Your task to perform on an android device: install app "Paramount+ | Peak Streaming" Image 0: 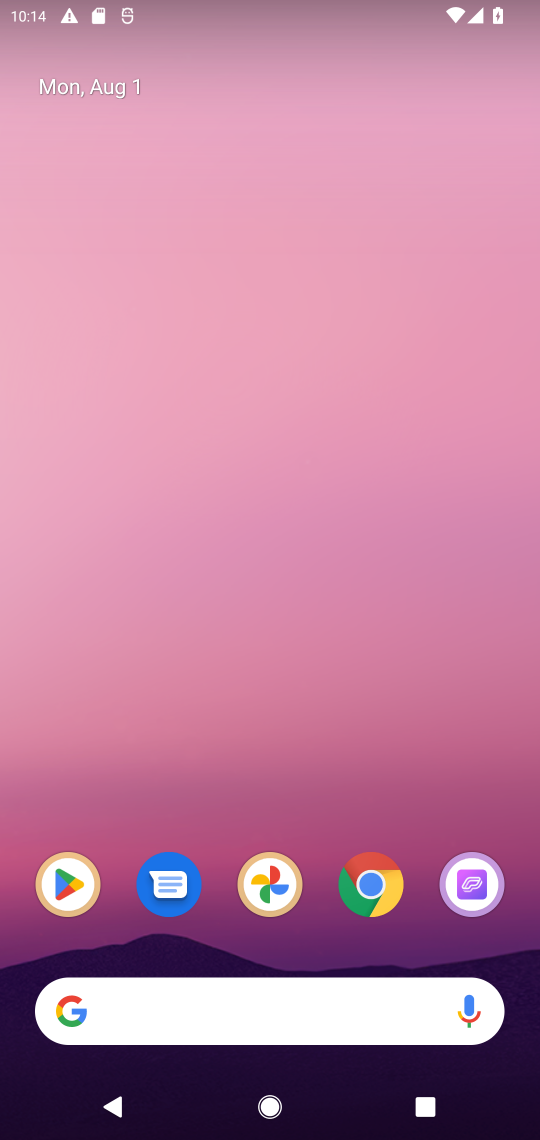
Step 0: click (56, 902)
Your task to perform on an android device: install app "Paramount+ | Peak Streaming" Image 1: 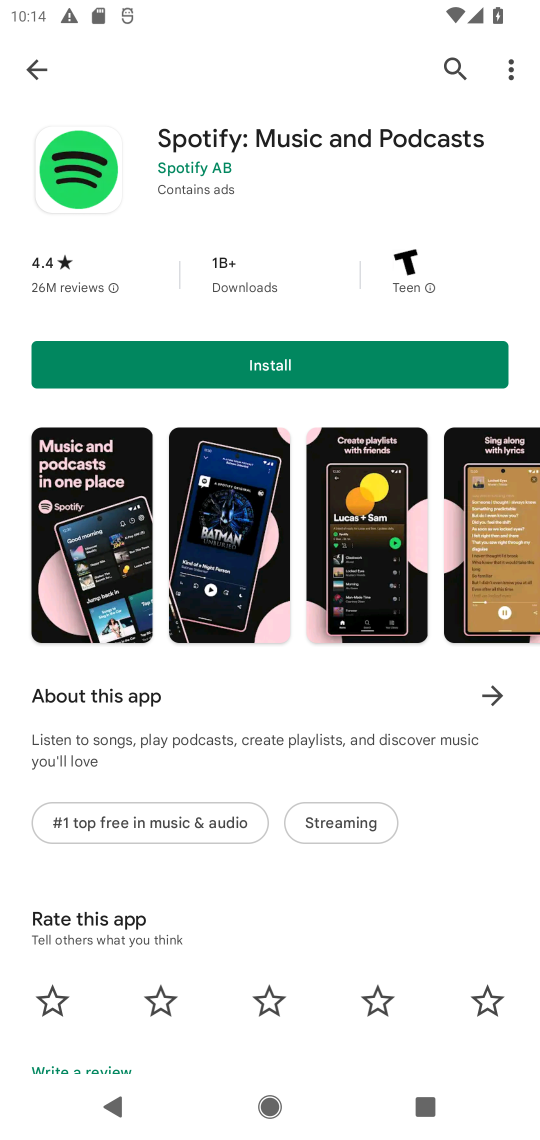
Step 1: click (455, 72)
Your task to perform on an android device: install app "Paramount+ | Peak Streaming" Image 2: 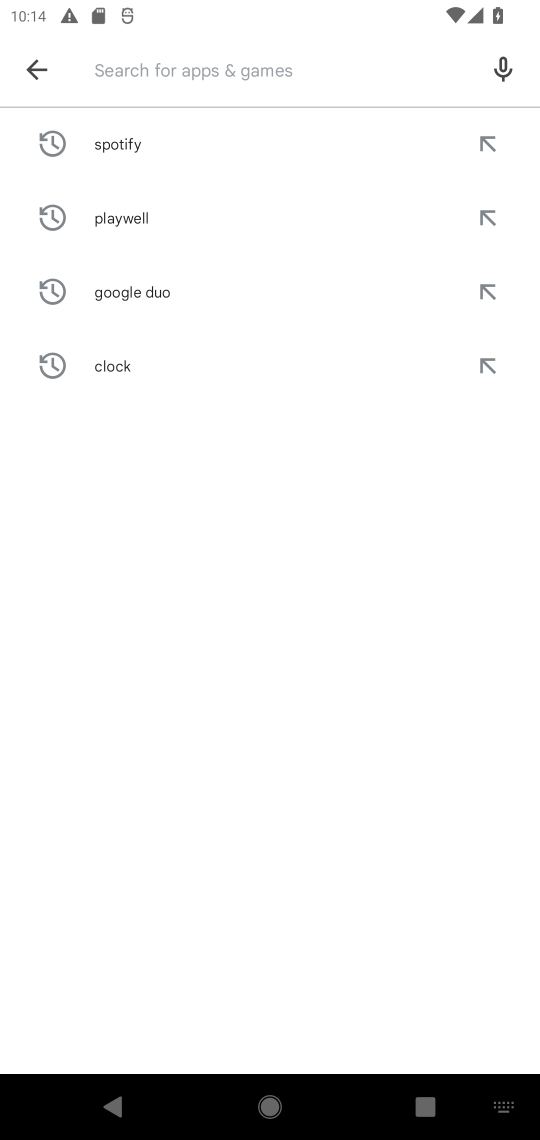
Step 2: type "paramount+ peak streaming"
Your task to perform on an android device: install app "Paramount+ | Peak Streaming" Image 3: 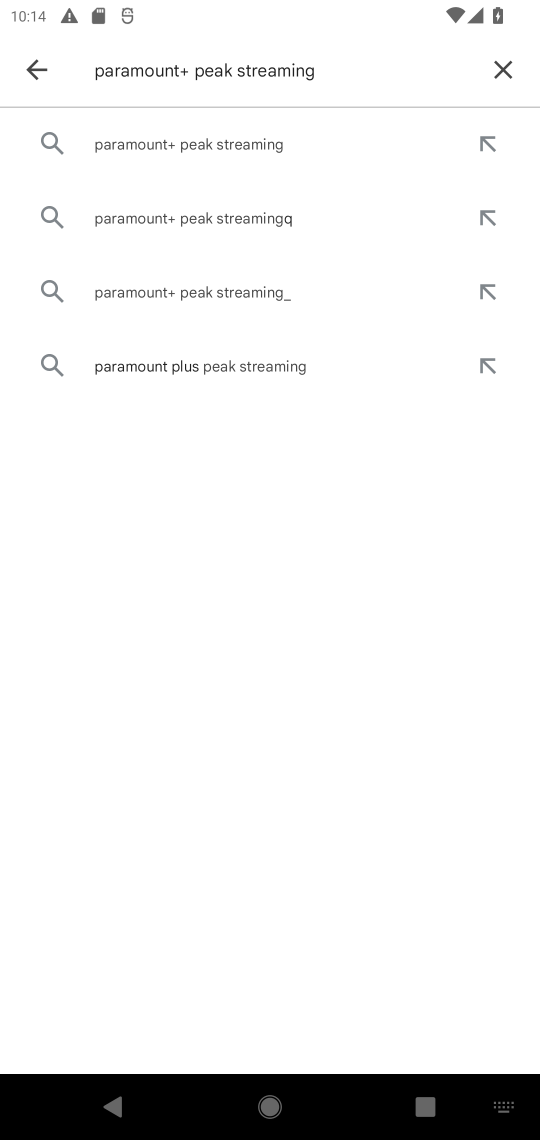
Step 3: click (290, 133)
Your task to perform on an android device: install app "Paramount+ | Peak Streaming" Image 4: 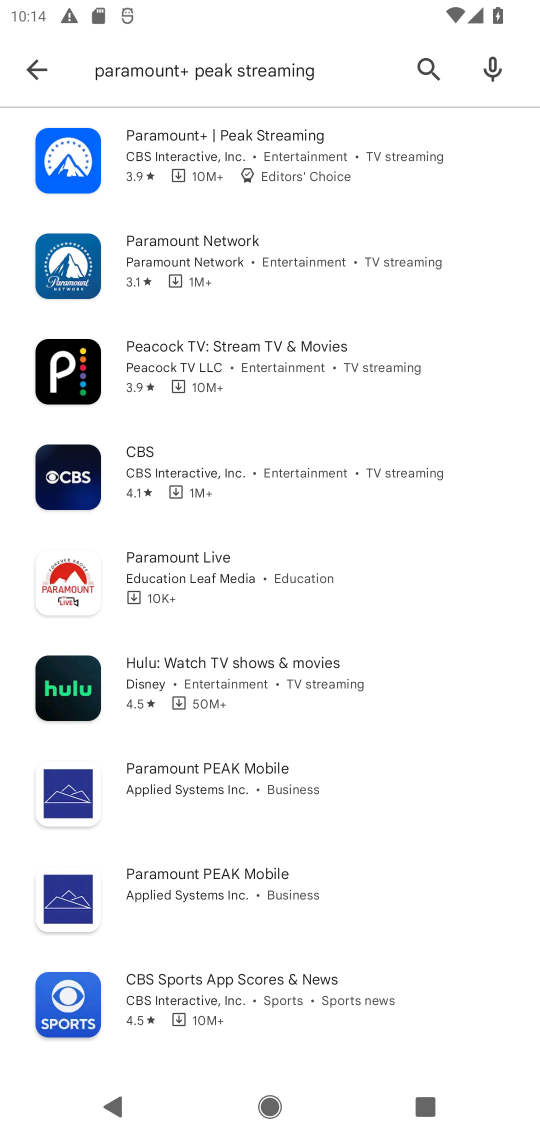
Step 4: click (203, 154)
Your task to perform on an android device: install app "Paramount+ | Peak Streaming" Image 5: 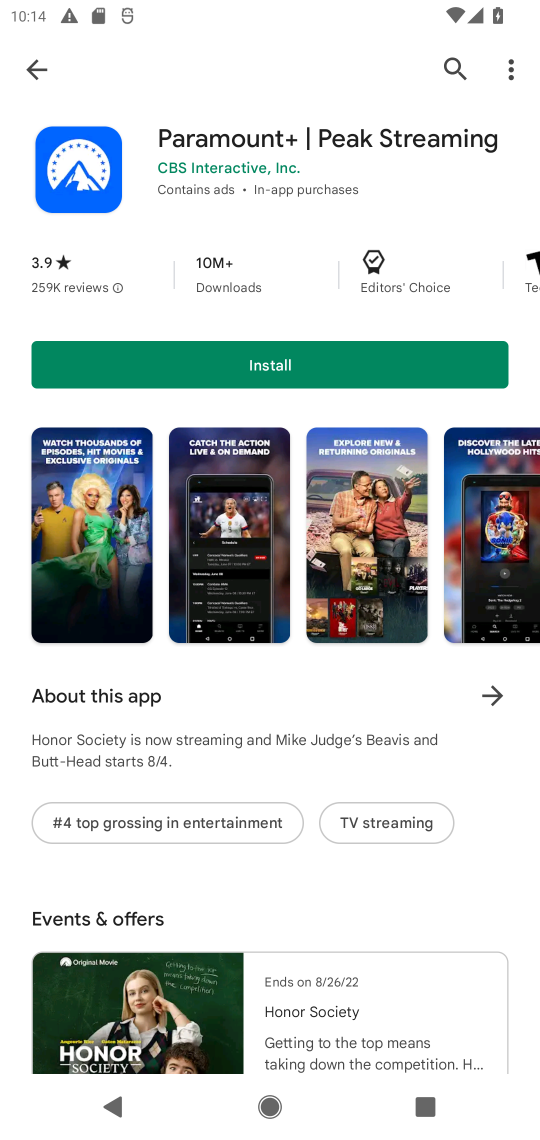
Step 5: click (298, 354)
Your task to perform on an android device: install app "Paramount+ | Peak Streaming" Image 6: 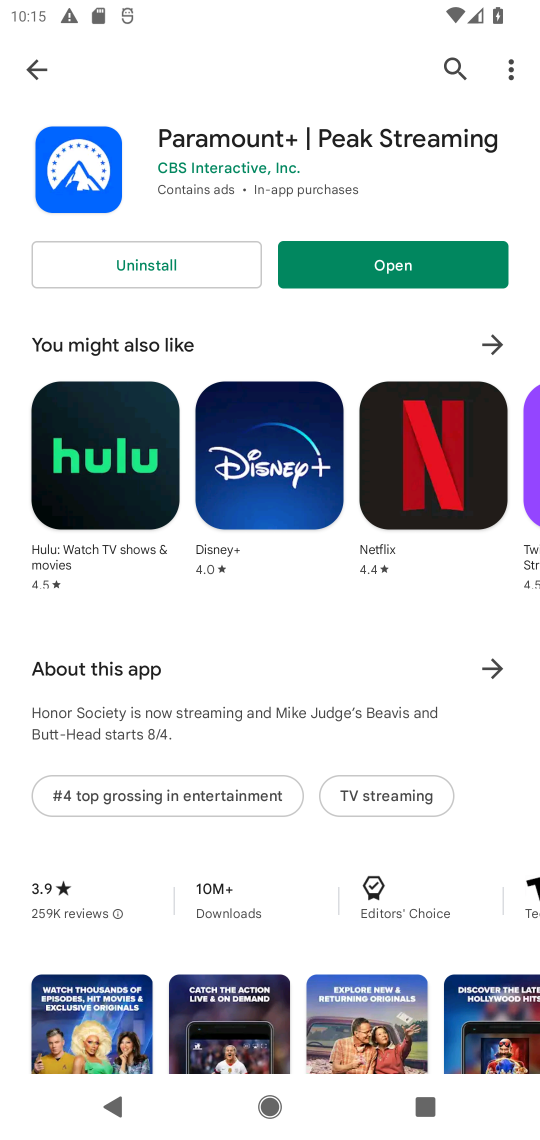
Step 6: task complete